Your task to perform on an android device: turn off priority inbox in the gmail app Image 0: 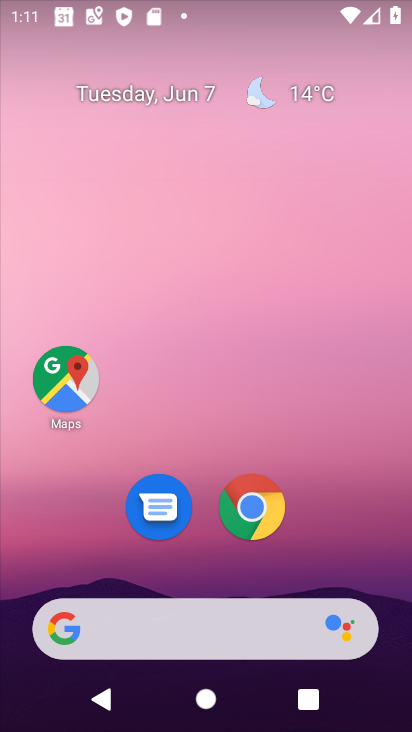
Step 0: drag from (395, 615) to (361, 49)
Your task to perform on an android device: turn off priority inbox in the gmail app Image 1: 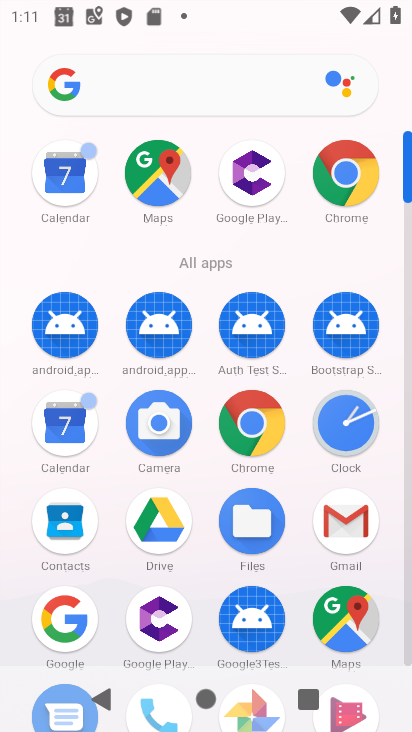
Step 1: click (409, 637)
Your task to perform on an android device: turn off priority inbox in the gmail app Image 2: 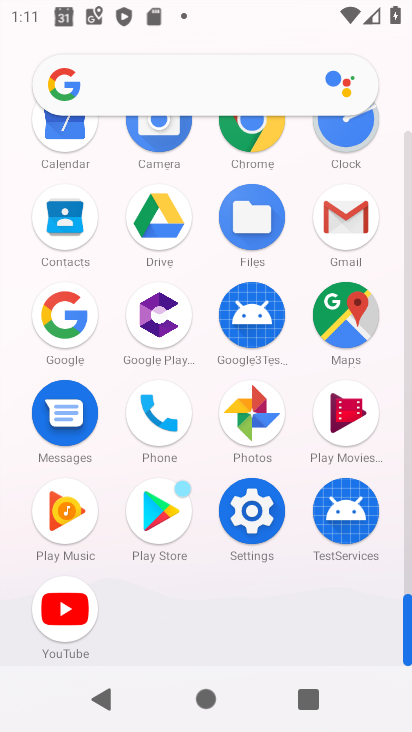
Step 2: click (346, 220)
Your task to perform on an android device: turn off priority inbox in the gmail app Image 3: 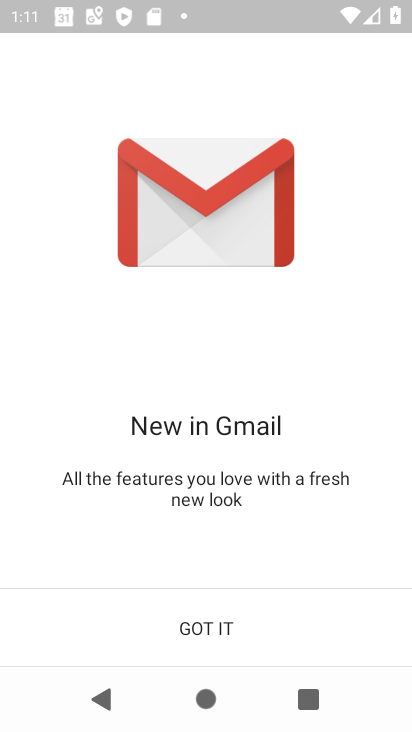
Step 3: click (217, 622)
Your task to perform on an android device: turn off priority inbox in the gmail app Image 4: 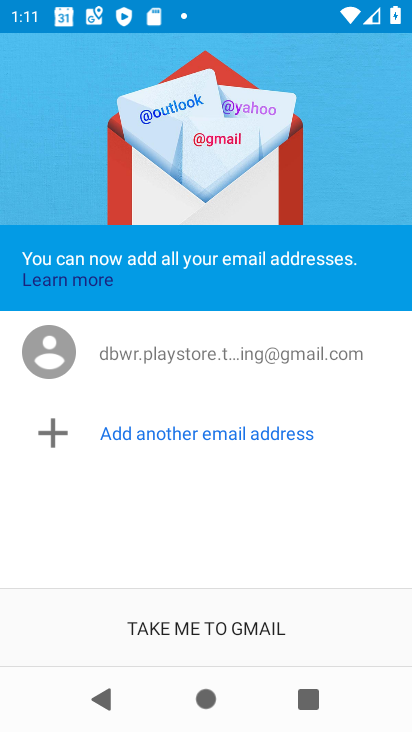
Step 4: click (222, 628)
Your task to perform on an android device: turn off priority inbox in the gmail app Image 5: 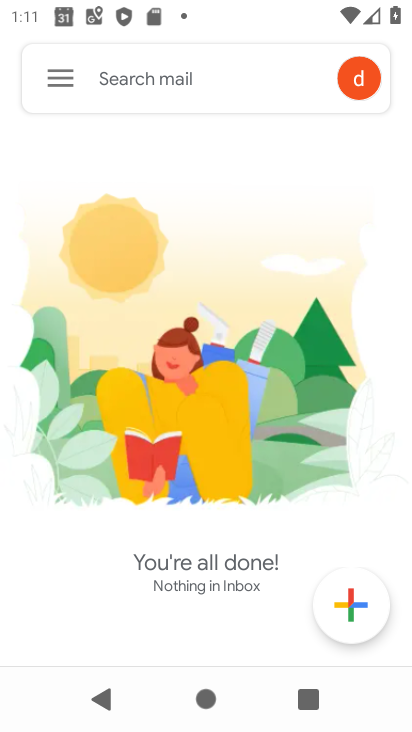
Step 5: click (60, 75)
Your task to perform on an android device: turn off priority inbox in the gmail app Image 6: 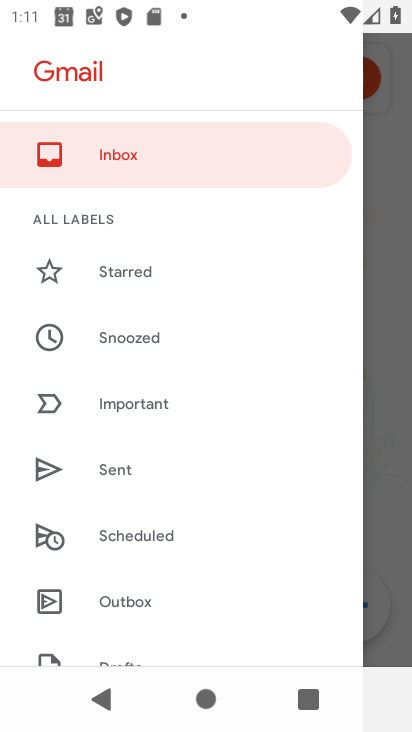
Step 6: drag from (239, 585) to (221, 236)
Your task to perform on an android device: turn off priority inbox in the gmail app Image 7: 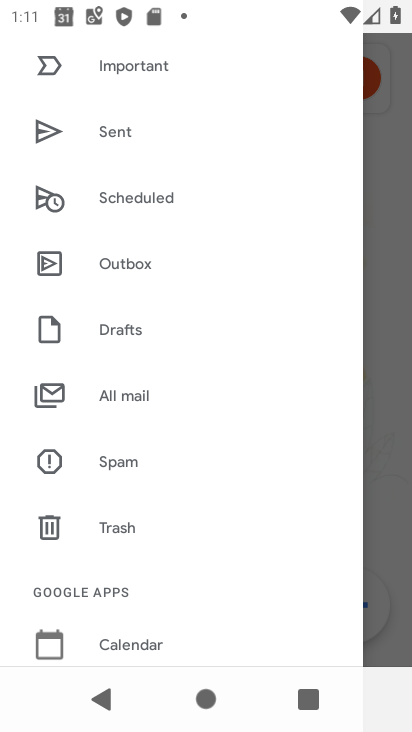
Step 7: drag from (216, 612) to (218, 199)
Your task to perform on an android device: turn off priority inbox in the gmail app Image 8: 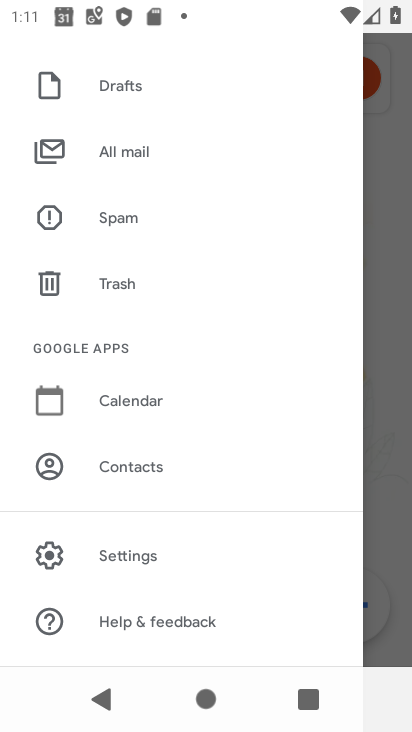
Step 8: click (121, 561)
Your task to perform on an android device: turn off priority inbox in the gmail app Image 9: 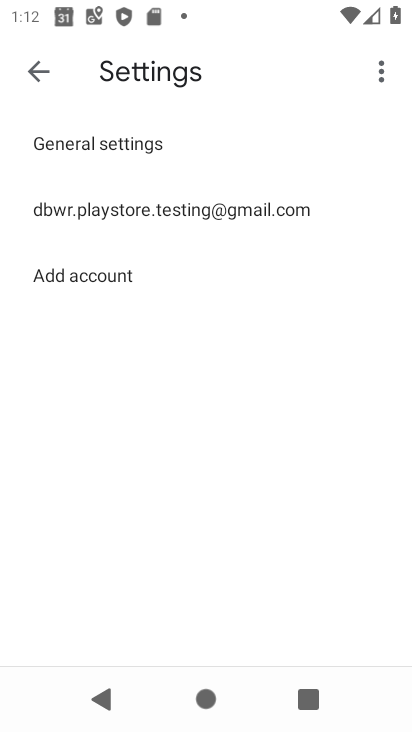
Step 9: click (141, 208)
Your task to perform on an android device: turn off priority inbox in the gmail app Image 10: 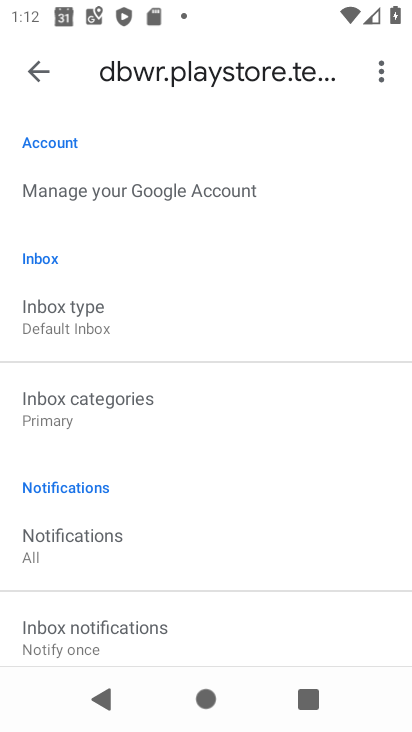
Step 10: click (61, 306)
Your task to perform on an android device: turn off priority inbox in the gmail app Image 11: 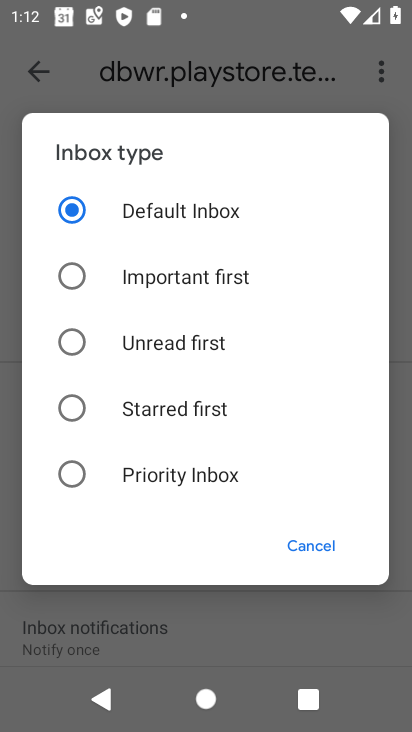
Step 11: task complete